Your task to perform on an android device: Do I have any events this weekend? Image 0: 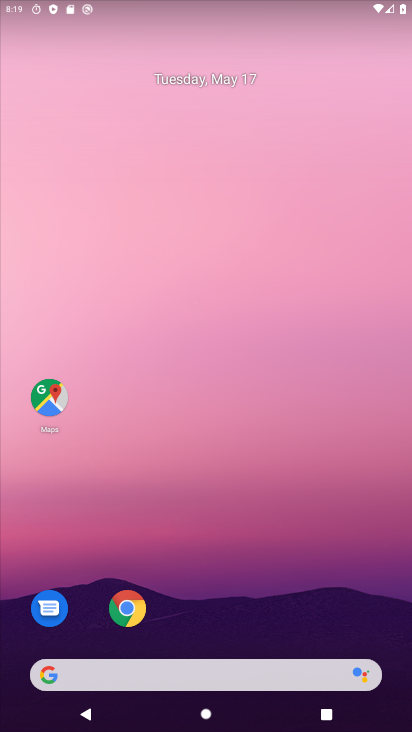
Step 0: drag from (352, 381) to (363, 59)
Your task to perform on an android device: Do I have any events this weekend? Image 1: 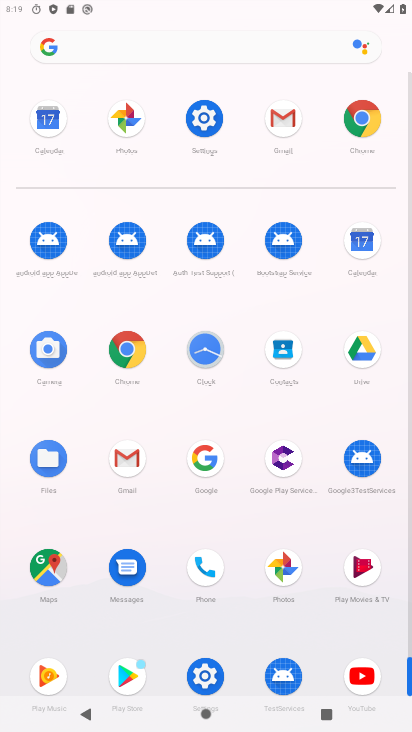
Step 1: click (370, 239)
Your task to perform on an android device: Do I have any events this weekend? Image 2: 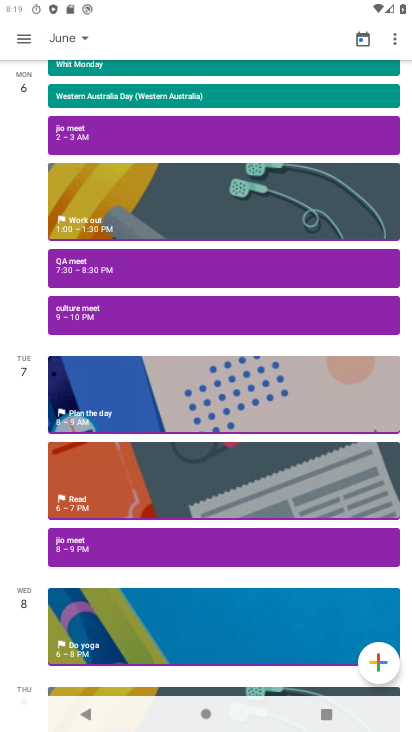
Step 2: click (69, 40)
Your task to perform on an android device: Do I have any events this weekend? Image 3: 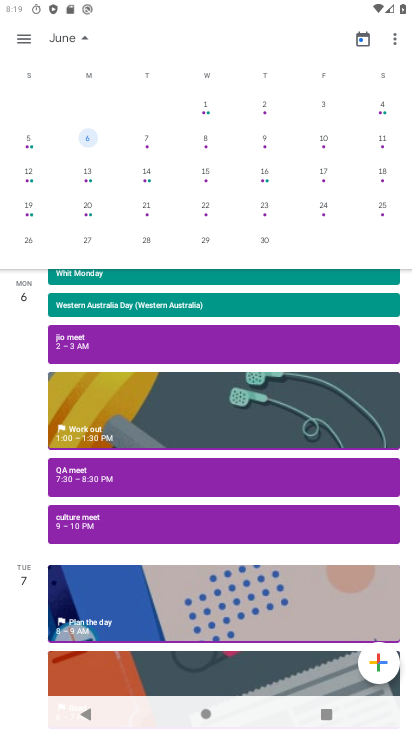
Step 3: drag from (117, 111) to (411, 120)
Your task to perform on an android device: Do I have any events this weekend? Image 4: 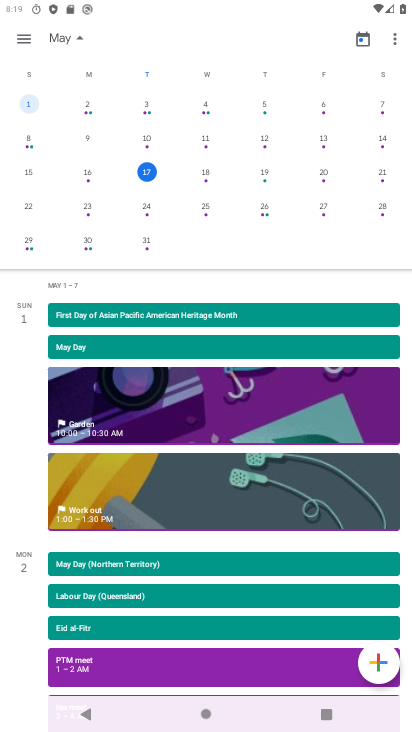
Step 4: click (145, 180)
Your task to perform on an android device: Do I have any events this weekend? Image 5: 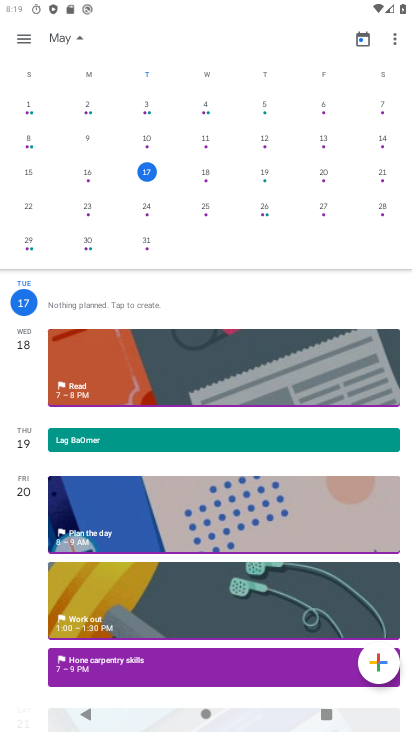
Step 5: task complete